Your task to perform on an android device: change alarm snooze length Image 0: 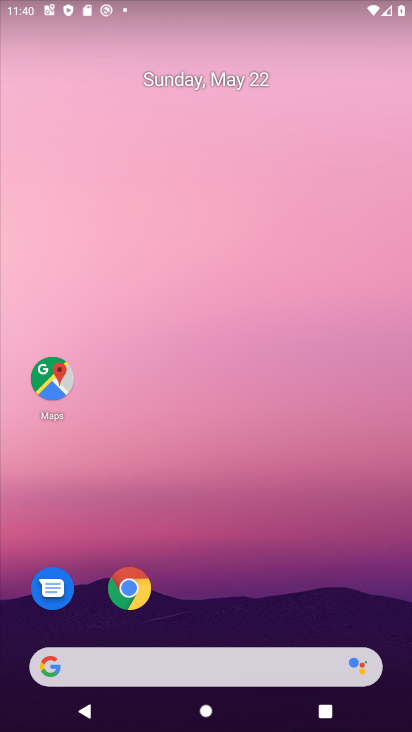
Step 0: drag from (266, 697) to (280, 30)
Your task to perform on an android device: change alarm snooze length Image 1: 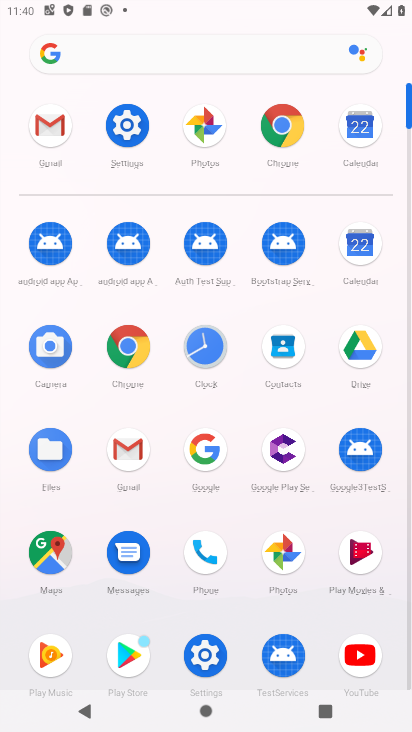
Step 1: click (208, 342)
Your task to perform on an android device: change alarm snooze length Image 2: 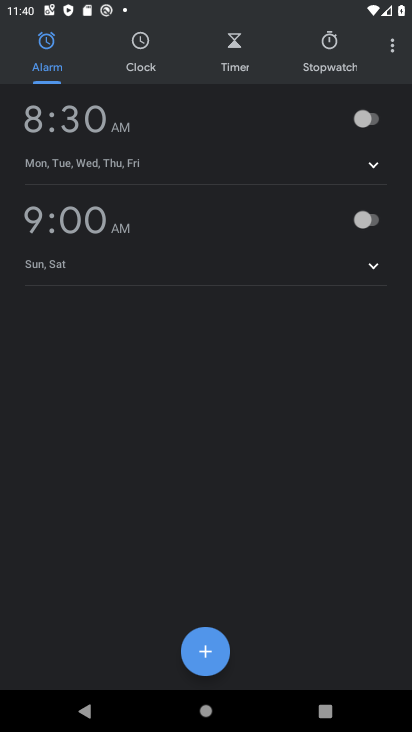
Step 2: click (391, 42)
Your task to perform on an android device: change alarm snooze length Image 3: 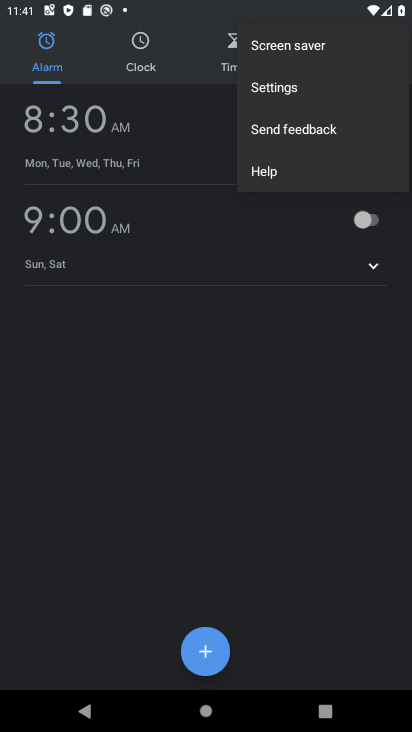
Step 3: click (284, 94)
Your task to perform on an android device: change alarm snooze length Image 4: 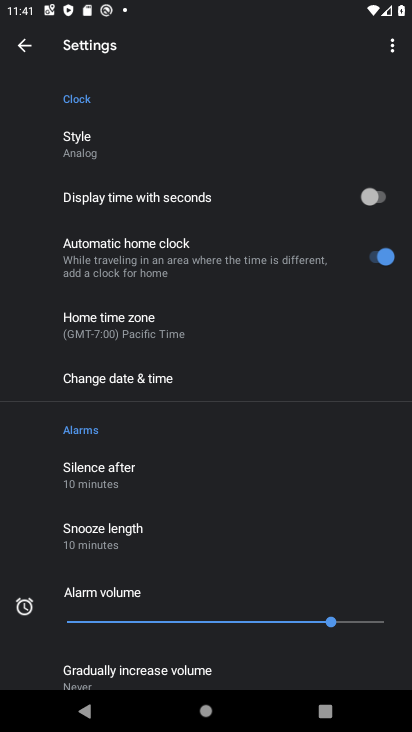
Step 4: click (118, 549)
Your task to perform on an android device: change alarm snooze length Image 5: 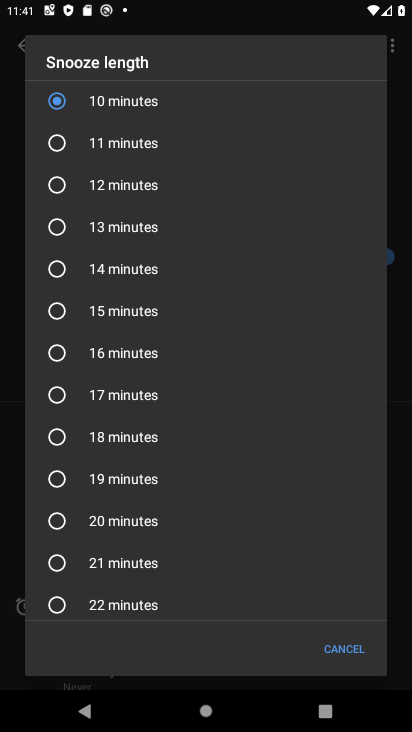
Step 5: click (124, 228)
Your task to perform on an android device: change alarm snooze length Image 6: 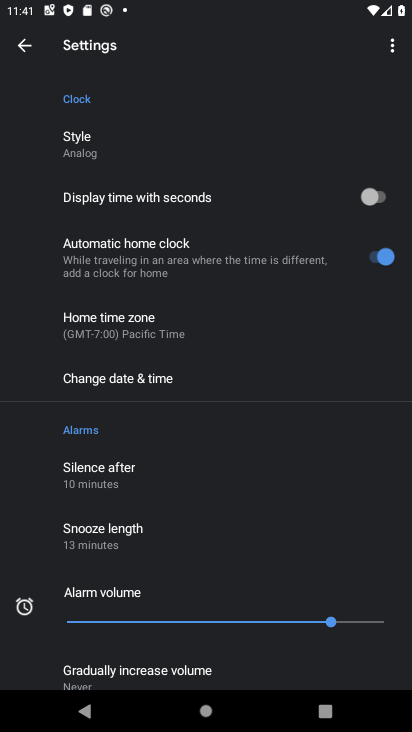
Step 6: task complete